Your task to perform on an android device: Go to Amazon Image 0: 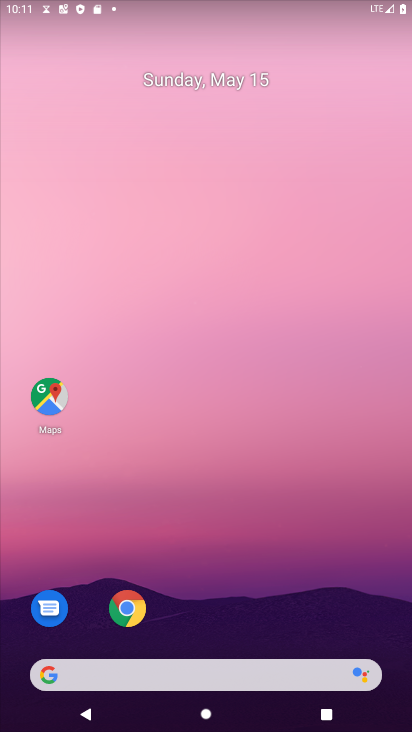
Step 0: drag from (227, 553) to (408, 6)
Your task to perform on an android device: Go to Amazon Image 1: 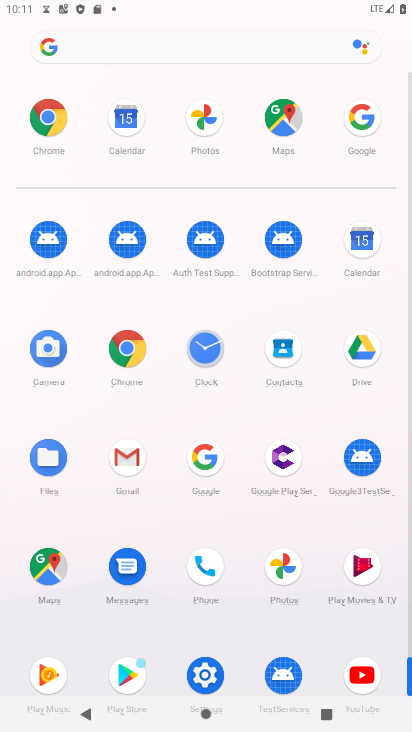
Step 1: click (54, 112)
Your task to perform on an android device: Go to Amazon Image 2: 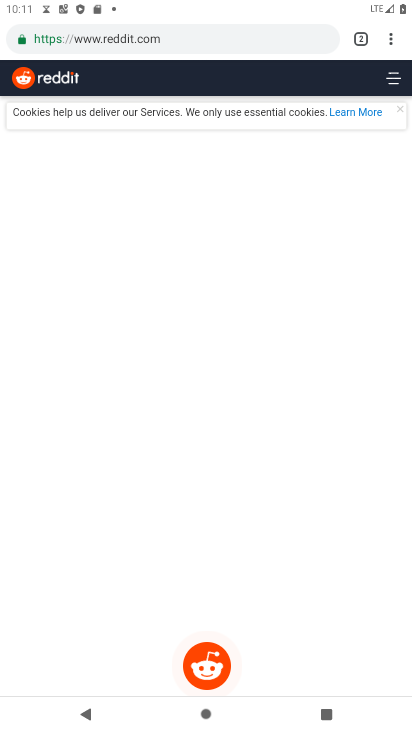
Step 2: click (137, 34)
Your task to perform on an android device: Go to Amazon Image 3: 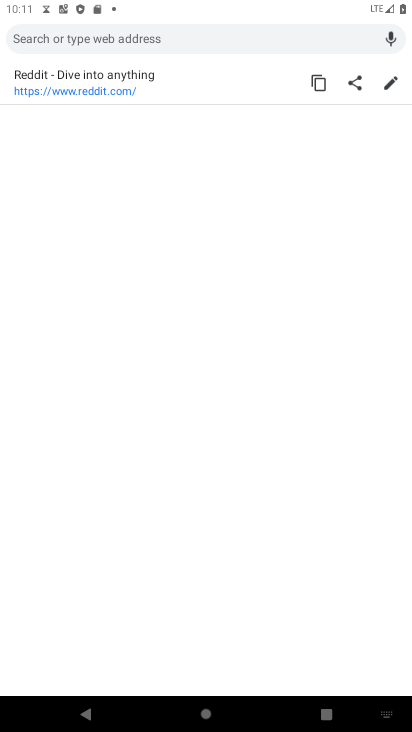
Step 3: type "amazon"
Your task to perform on an android device: Go to Amazon Image 4: 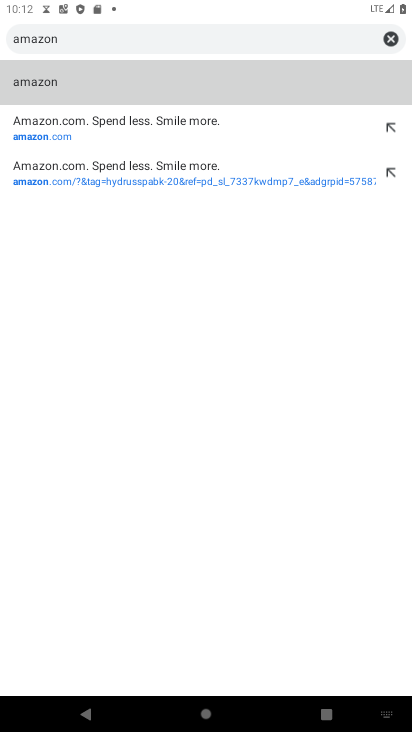
Step 4: click (79, 94)
Your task to perform on an android device: Go to Amazon Image 5: 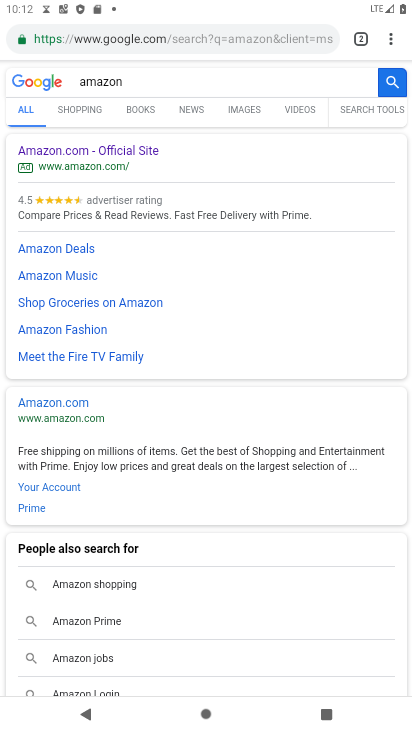
Step 5: task complete